Your task to perform on an android device: Search for seafood restaurants on Google Maps Image 0: 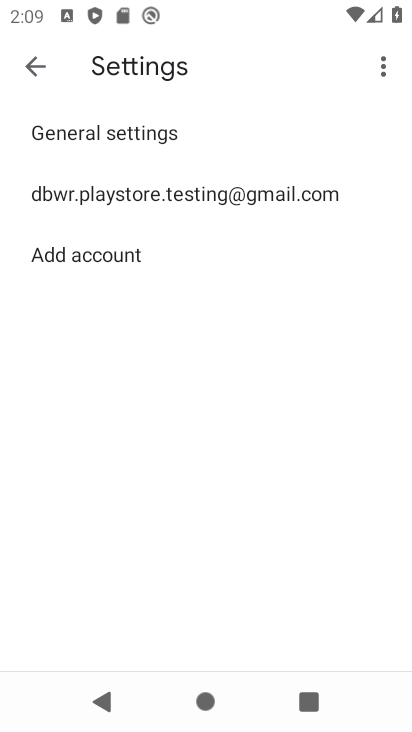
Step 0: press home button
Your task to perform on an android device: Search for seafood restaurants on Google Maps Image 1: 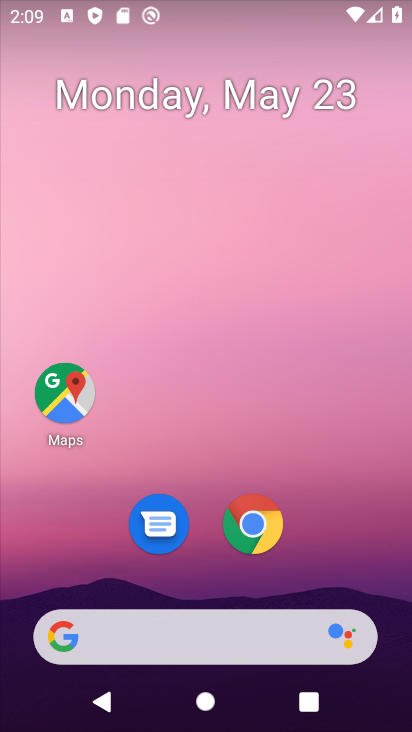
Step 1: click (52, 401)
Your task to perform on an android device: Search for seafood restaurants on Google Maps Image 2: 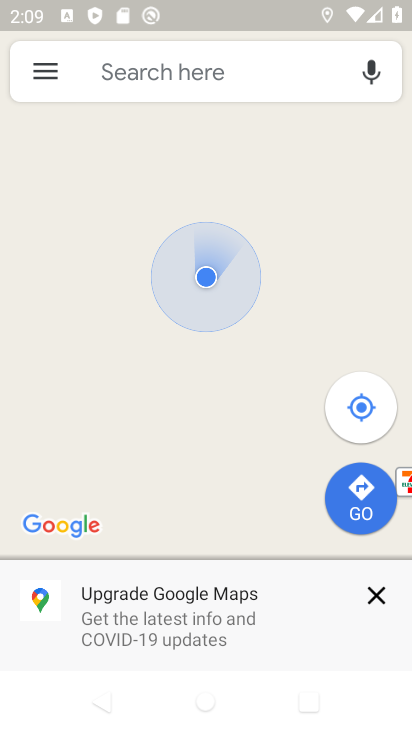
Step 2: click (117, 59)
Your task to perform on an android device: Search for seafood restaurants on Google Maps Image 3: 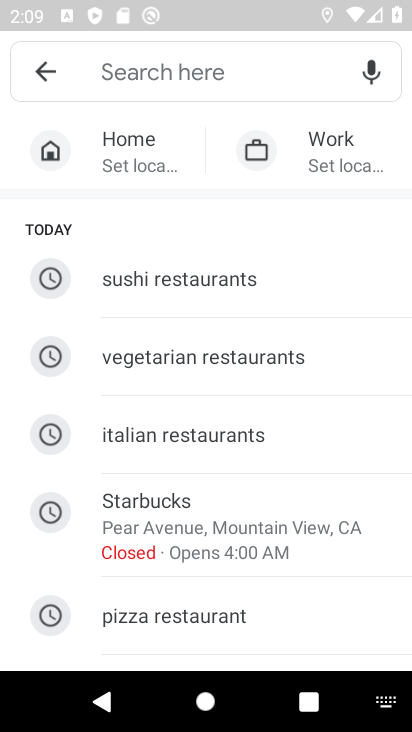
Step 3: drag from (225, 453) to (261, 142)
Your task to perform on an android device: Search for seafood restaurants on Google Maps Image 4: 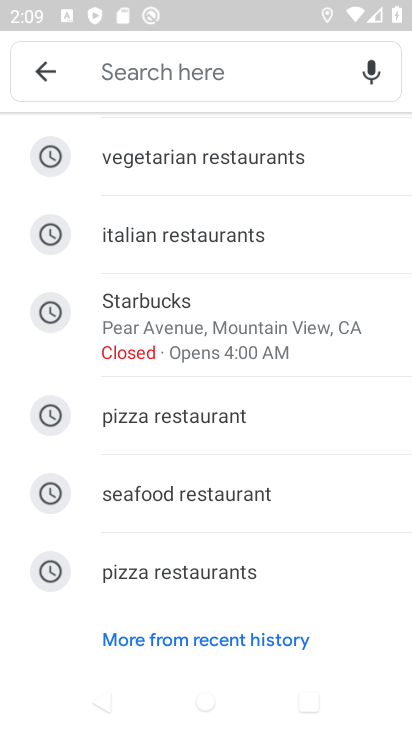
Step 4: click (235, 484)
Your task to perform on an android device: Search for seafood restaurants on Google Maps Image 5: 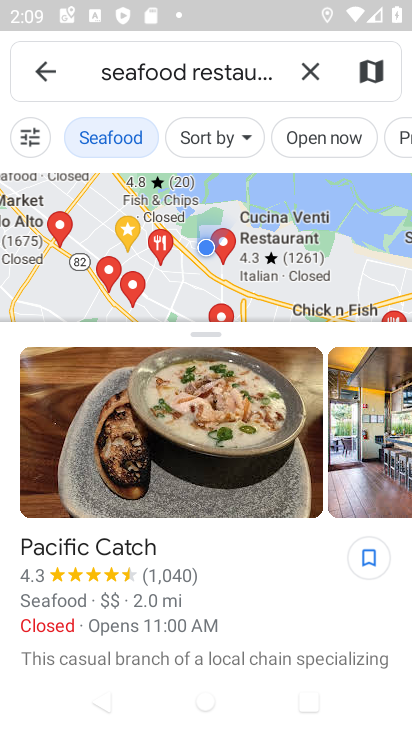
Step 5: task complete